Your task to perform on an android device: turn off data saver in the chrome app Image 0: 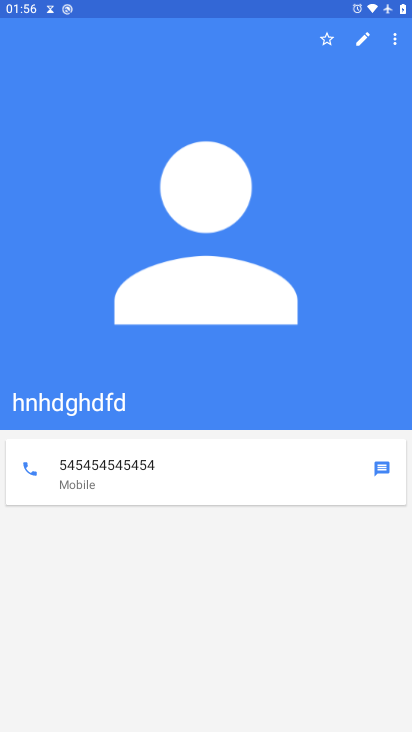
Step 0: press home button
Your task to perform on an android device: turn off data saver in the chrome app Image 1: 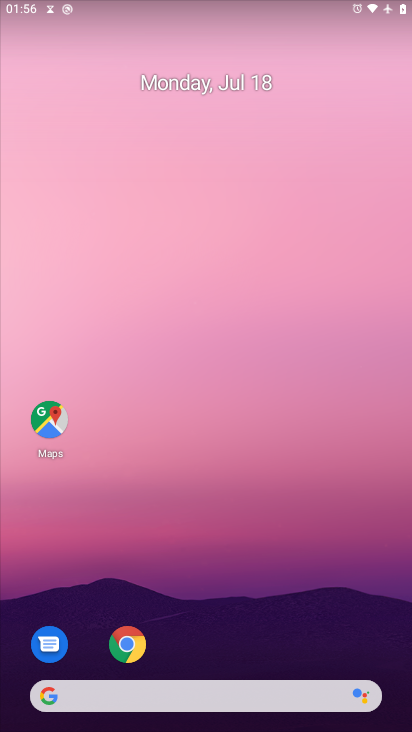
Step 1: drag from (201, 435) to (178, 131)
Your task to perform on an android device: turn off data saver in the chrome app Image 2: 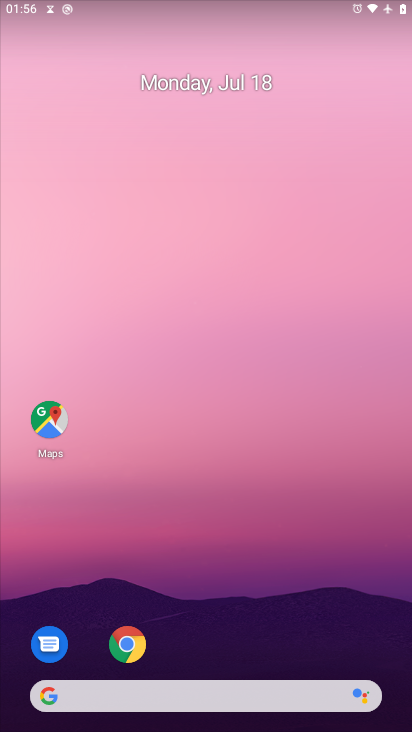
Step 2: drag from (258, 637) to (219, 6)
Your task to perform on an android device: turn off data saver in the chrome app Image 3: 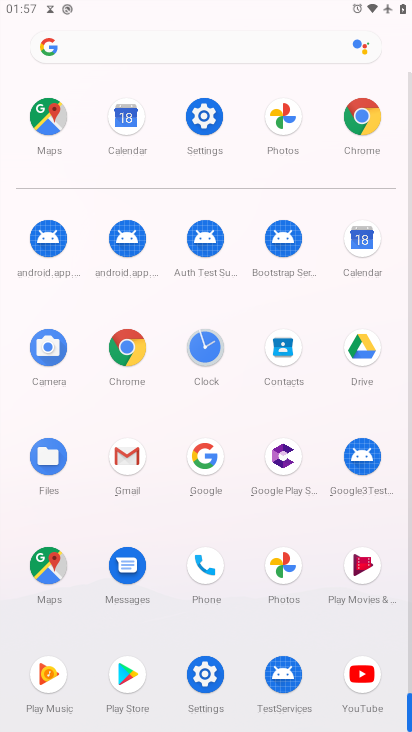
Step 3: click (365, 124)
Your task to perform on an android device: turn off data saver in the chrome app Image 4: 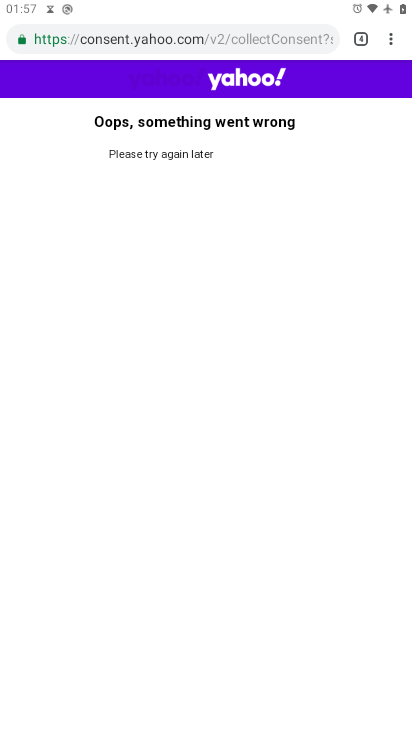
Step 4: drag from (391, 41) to (260, 441)
Your task to perform on an android device: turn off data saver in the chrome app Image 5: 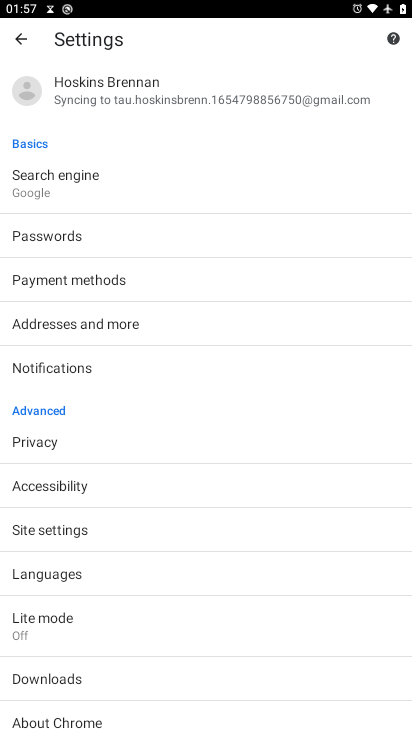
Step 5: click (38, 624)
Your task to perform on an android device: turn off data saver in the chrome app Image 6: 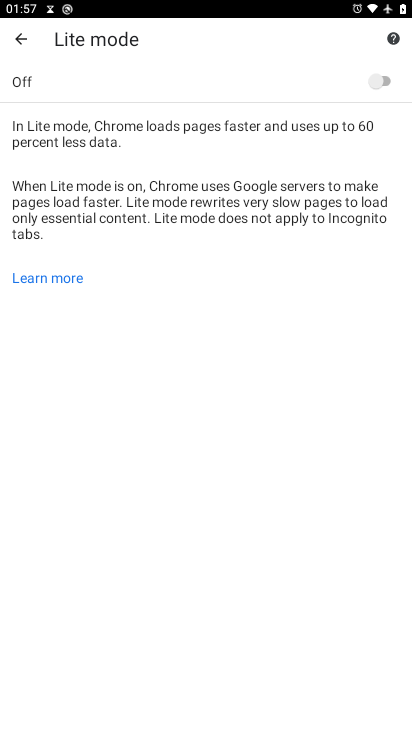
Step 6: task complete